Your task to perform on an android device: Go to Android settings Image 0: 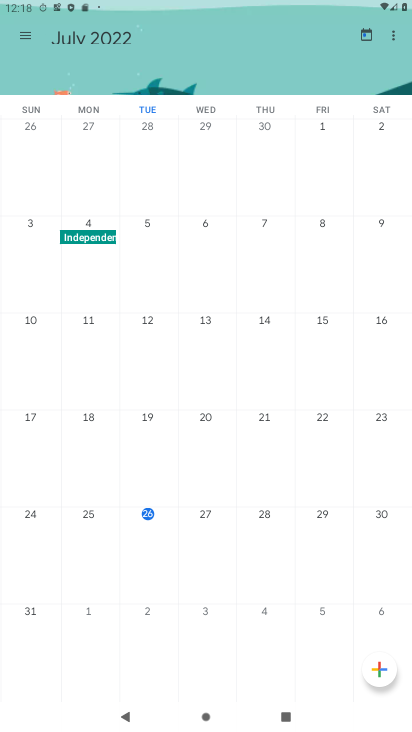
Step 0: press back button
Your task to perform on an android device: Go to Android settings Image 1: 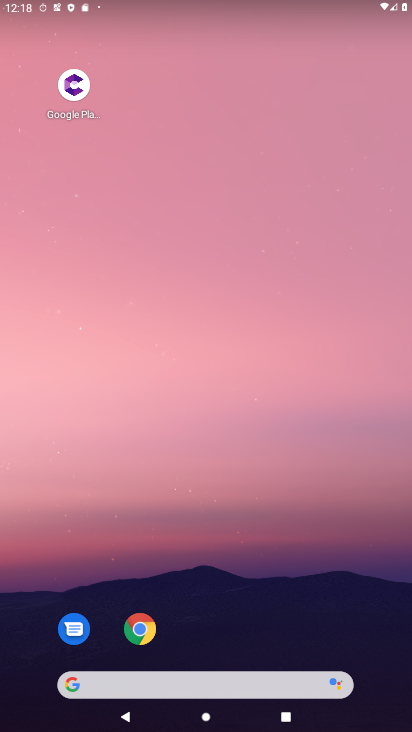
Step 1: drag from (255, 670) to (220, 86)
Your task to perform on an android device: Go to Android settings Image 2: 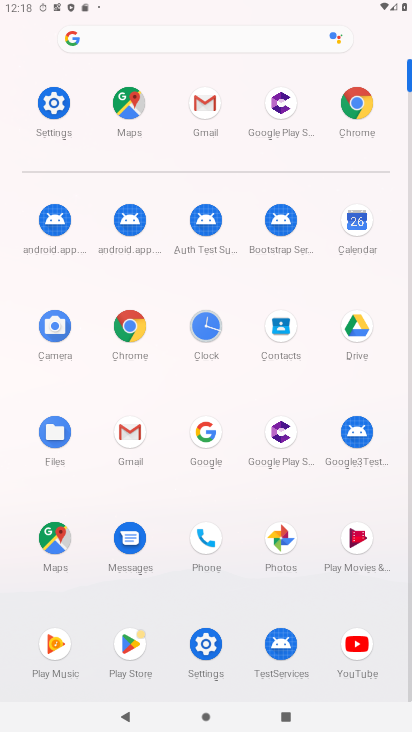
Step 2: click (127, 335)
Your task to perform on an android device: Go to Android settings Image 3: 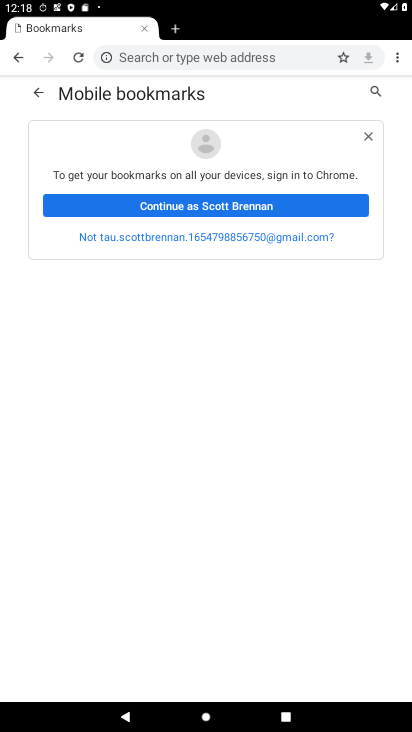
Step 3: click (35, 97)
Your task to perform on an android device: Go to Android settings Image 4: 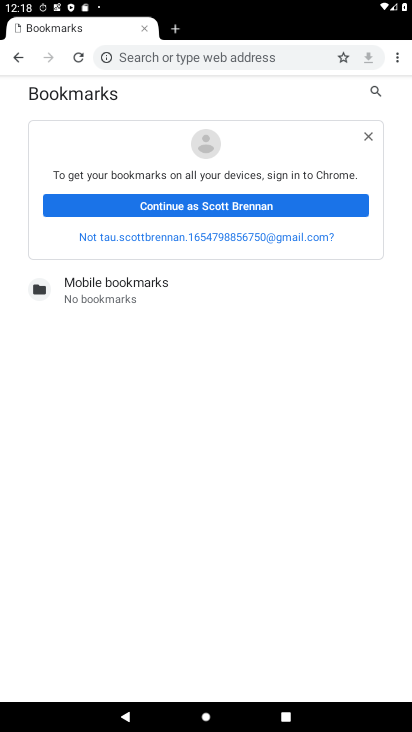
Step 4: click (368, 142)
Your task to perform on an android device: Go to Android settings Image 5: 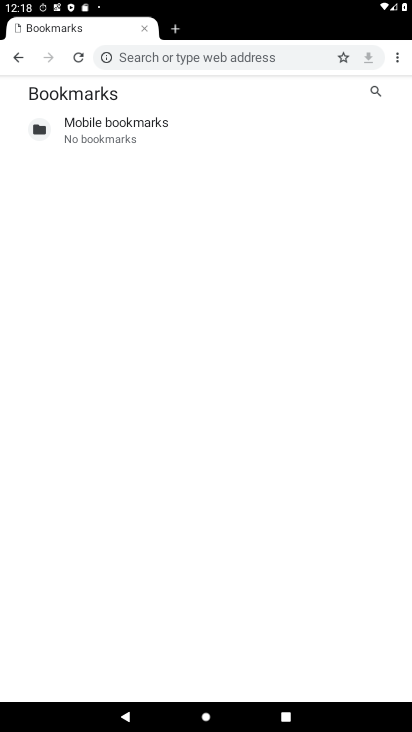
Step 5: press back button
Your task to perform on an android device: Go to Android settings Image 6: 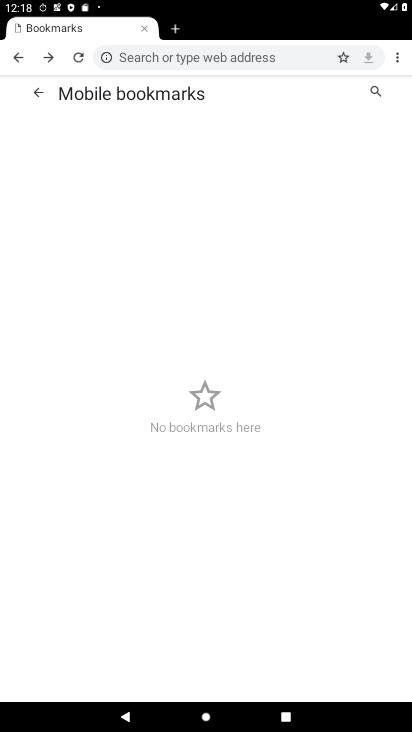
Step 6: click (41, 92)
Your task to perform on an android device: Go to Android settings Image 7: 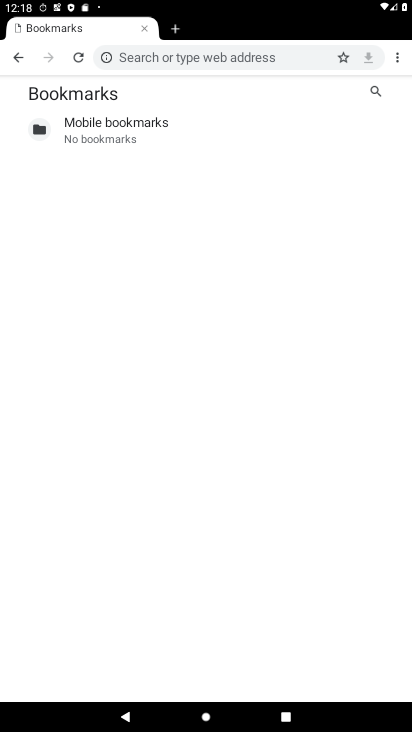
Step 7: click (392, 57)
Your task to perform on an android device: Go to Android settings Image 8: 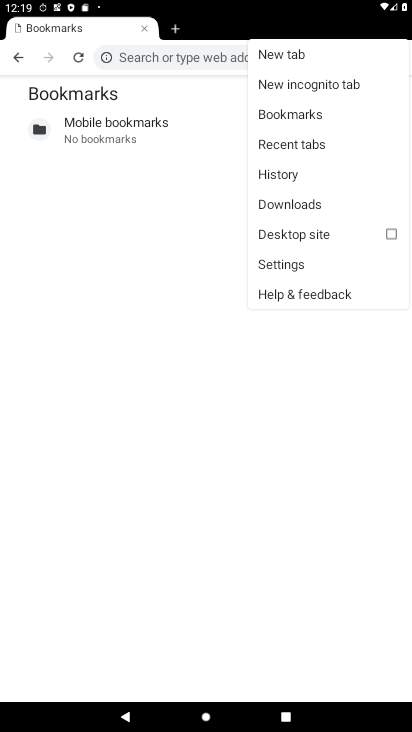
Step 8: click (162, 234)
Your task to perform on an android device: Go to Android settings Image 9: 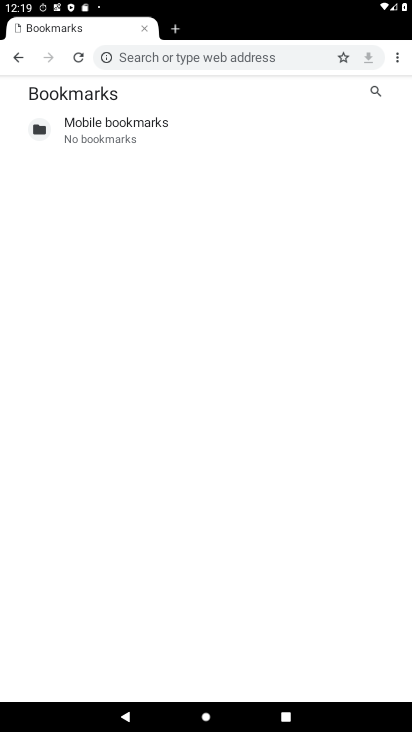
Step 9: click (154, 170)
Your task to perform on an android device: Go to Android settings Image 10: 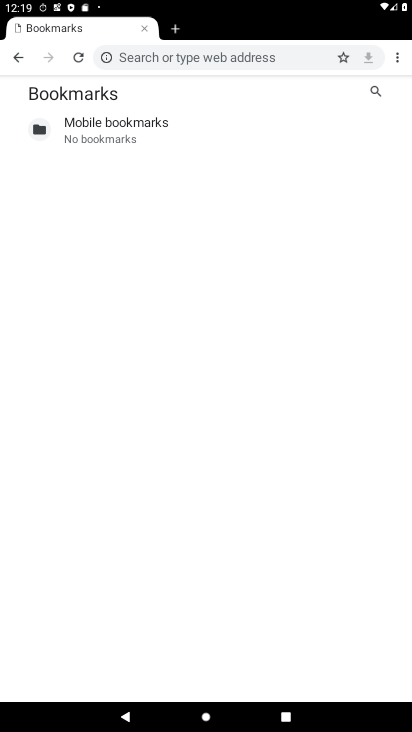
Step 10: press back button
Your task to perform on an android device: Go to Android settings Image 11: 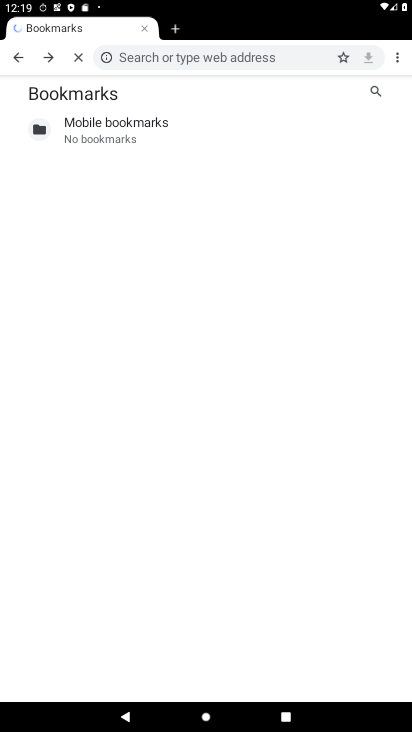
Step 11: press back button
Your task to perform on an android device: Go to Android settings Image 12: 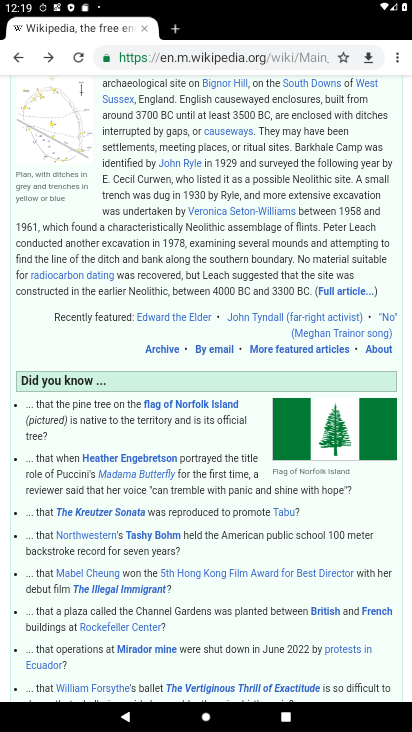
Step 12: press back button
Your task to perform on an android device: Go to Android settings Image 13: 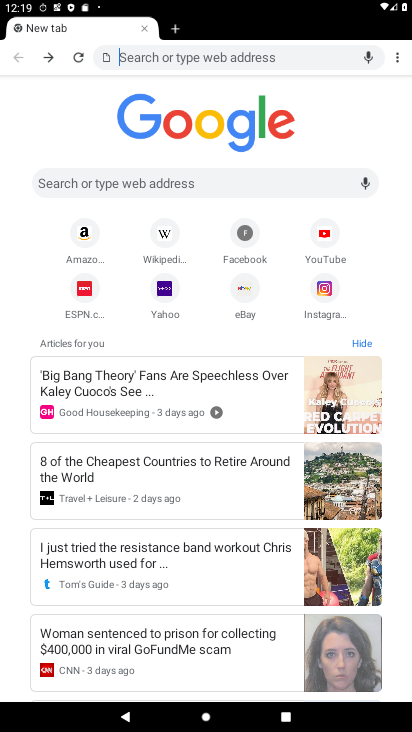
Step 13: press back button
Your task to perform on an android device: Go to Android settings Image 14: 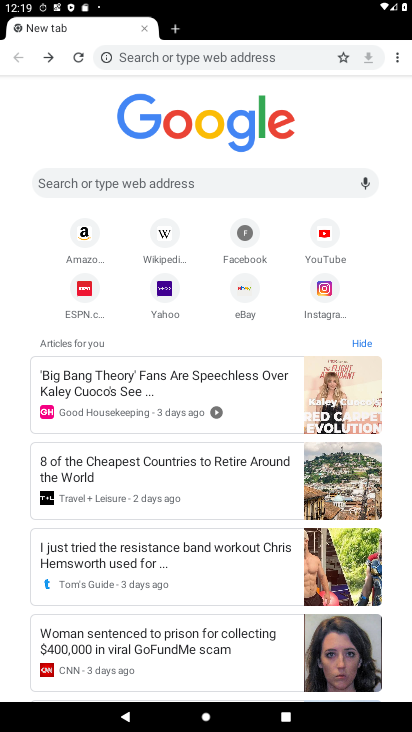
Step 14: press back button
Your task to perform on an android device: Go to Android settings Image 15: 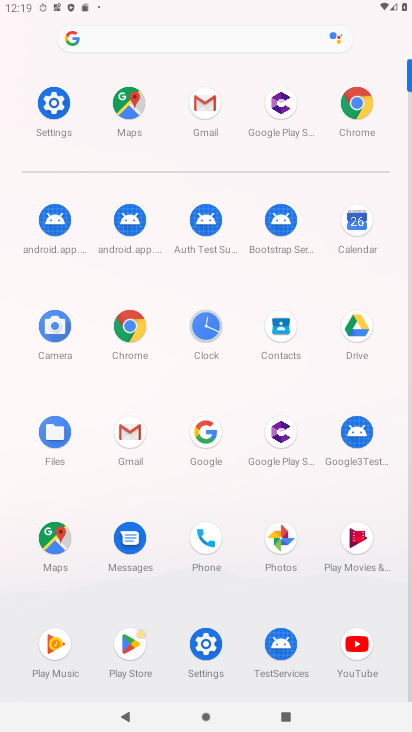
Step 15: press back button
Your task to perform on an android device: Go to Android settings Image 16: 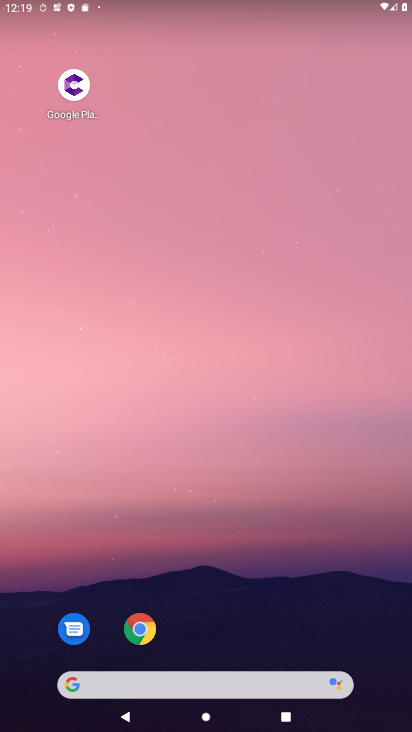
Step 16: drag from (289, 667) to (407, 137)
Your task to perform on an android device: Go to Android settings Image 17: 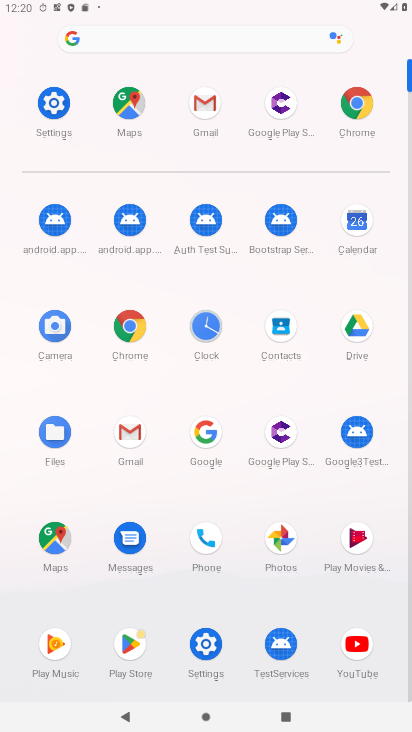
Step 17: click (49, 112)
Your task to perform on an android device: Go to Android settings Image 18: 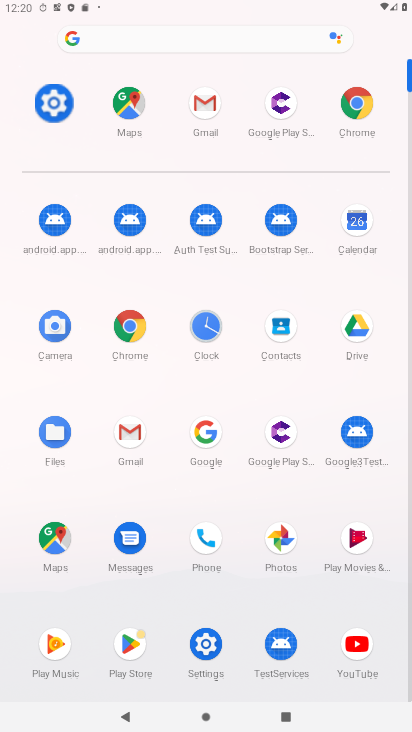
Step 18: click (53, 107)
Your task to perform on an android device: Go to Android settings Image 19: 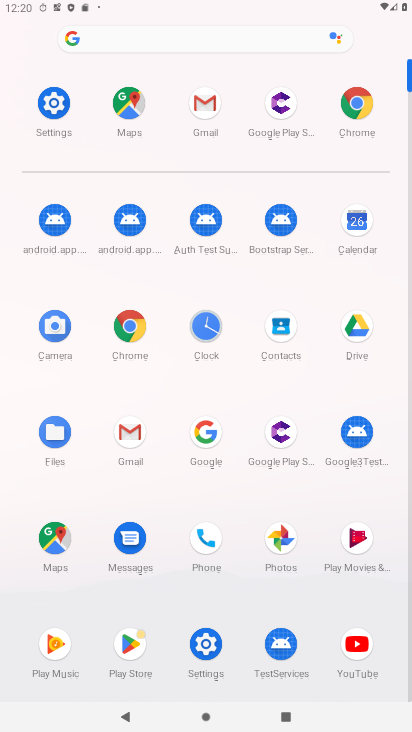
Step 19: click (54, 105)
Your task to perform on an android device: Go to Android settings Image 20: 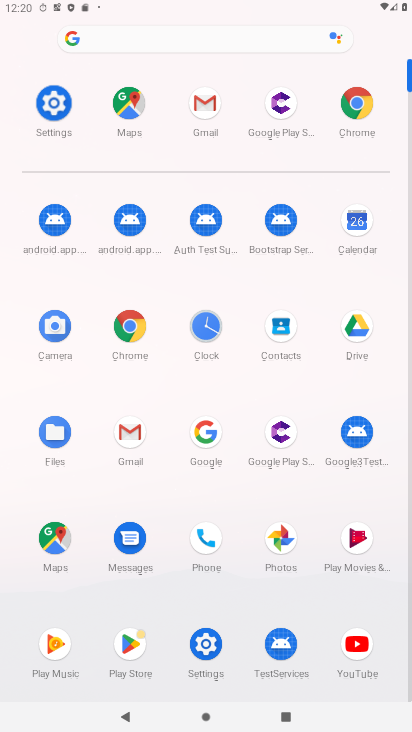
Step 20: click (55, 106)
Your task to perform on an android device: Go to Android settings Image 21: 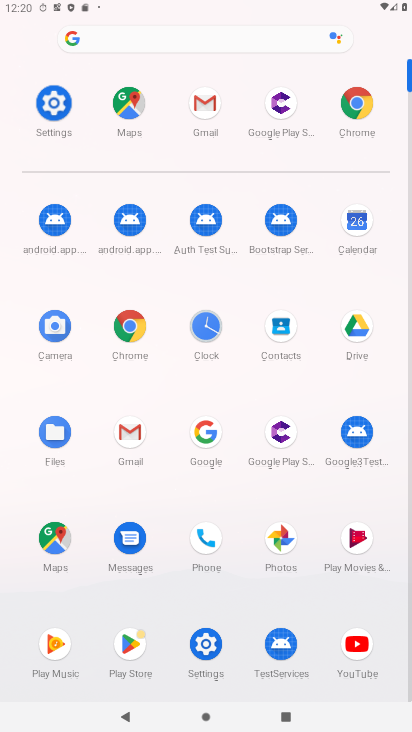
Step 21: click (52, 106)
Your task to perform on an android device: Go to Android settings Image 22: 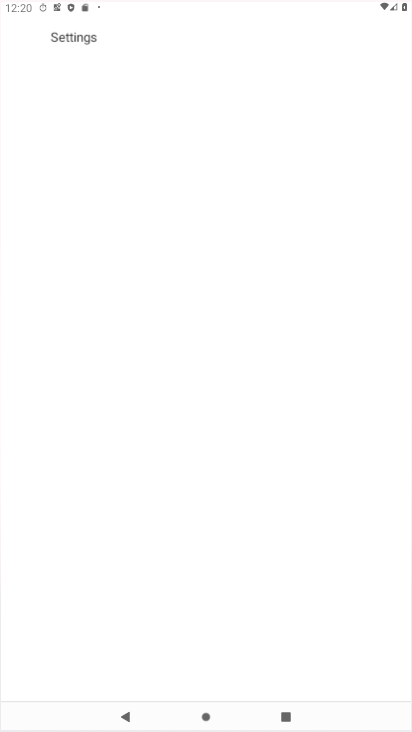
Step 22: click (52, 107)
Your task to perform on an android device: Go to Android settings Image 23: 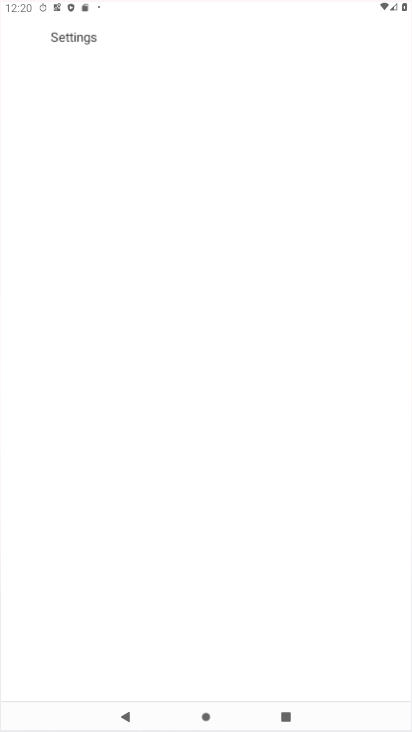
Step 23: click (54, 109)
Your task to perform on an android device: Go to Android settings Image 24: 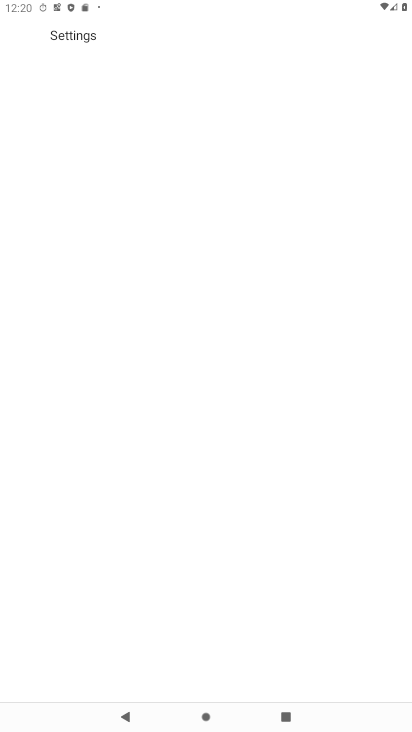
Step 24: click (54, 109)
Your task to perform on an android device: Go to Android settings Image 25: 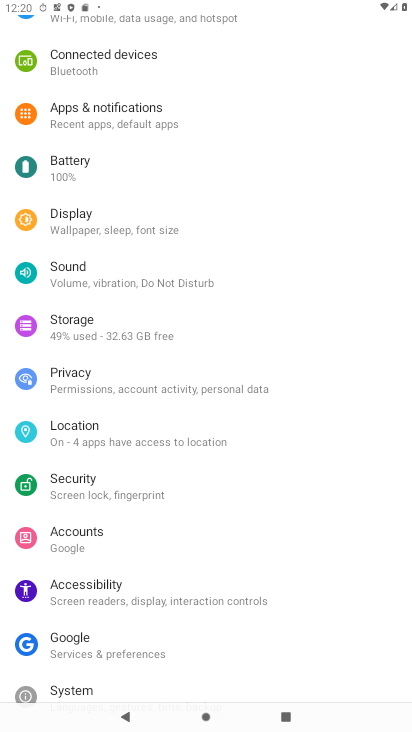
Step 25: drag from (153, 574) to (140, 327)
Your task to perform on an android device: Go to Android settings Image 26: 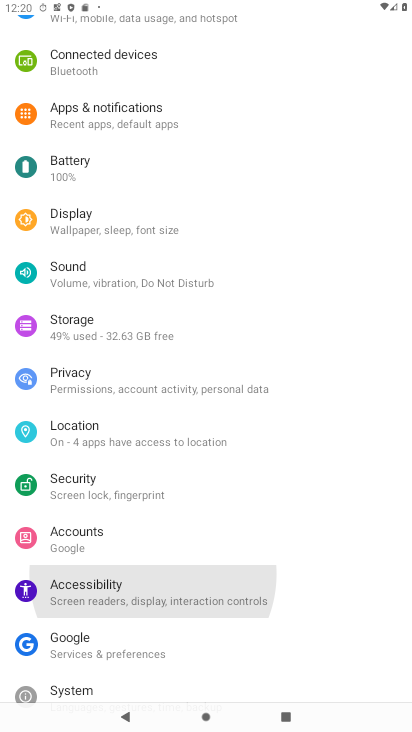
Step 26: drag from (153, 510) to (150, 377)
Your task to perform on an android device: Go to Android settings Image 27: 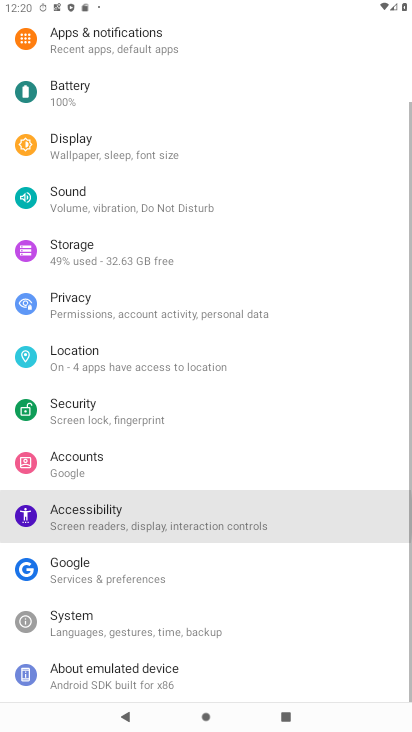
Step 27: drag from (167, 514) to (167, 351)
Your task to perform on an android device: Go to Android settings Image 28: 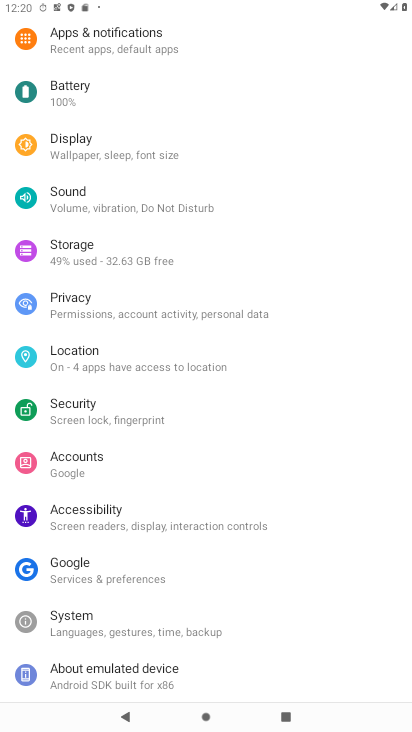
Step 28: click (158, 357)
Your task to perform on an android device: Go to Android settings Image 29: 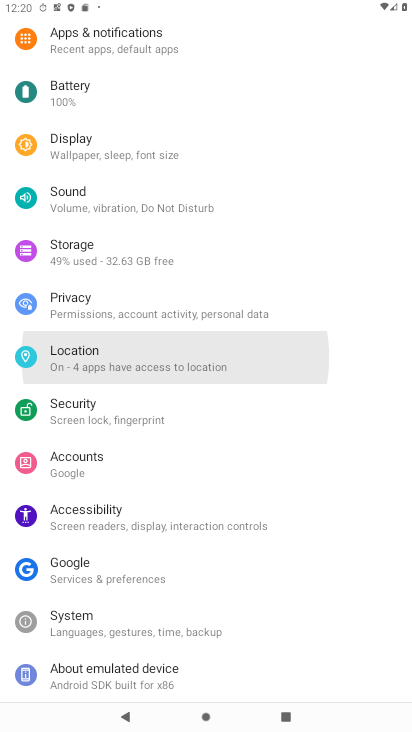
Step 29: drag from (153, 496) to (170, 282)
Your task to perform on an android device: Go to Android settings Image 30: 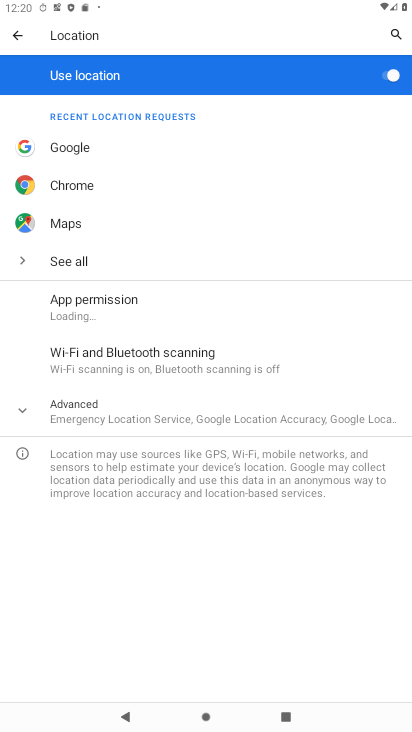
Step 30: click (15, 36)
Your task to perform on an android device: Go to Android settings Image 31: 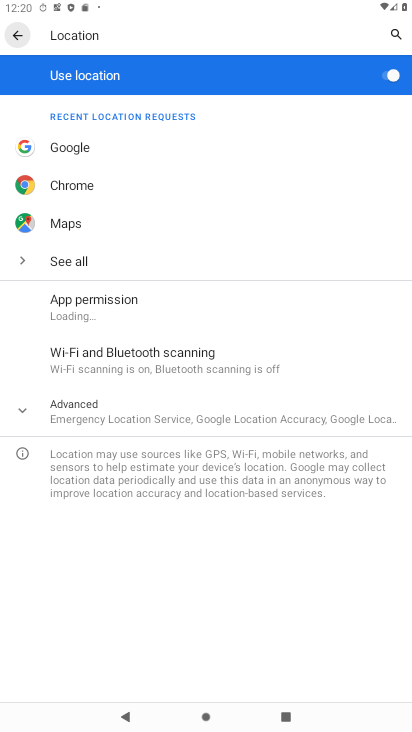
Step 31: click (12, 35)
Your task to perform on an android device: Go to Android settings Image 32: 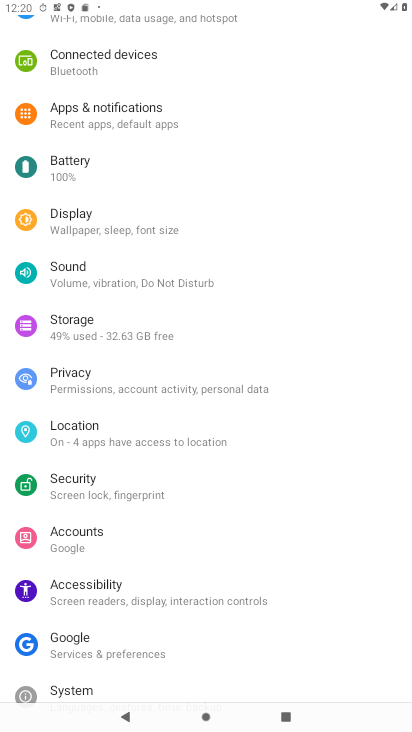
Step 32: drag from (103, 427) to (103, 289)
Your task to perform on an android device: Go to Android settings Image 33: 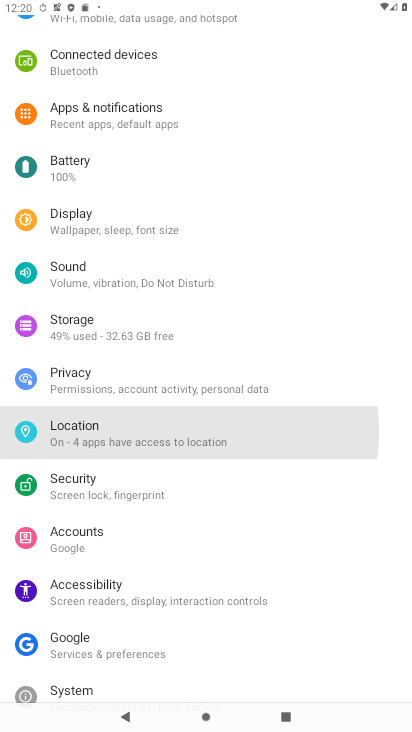
Step 33: drag from (128, 545) to (128, 272)
Your task to perform on an android device: Go to Android settings Image 34: 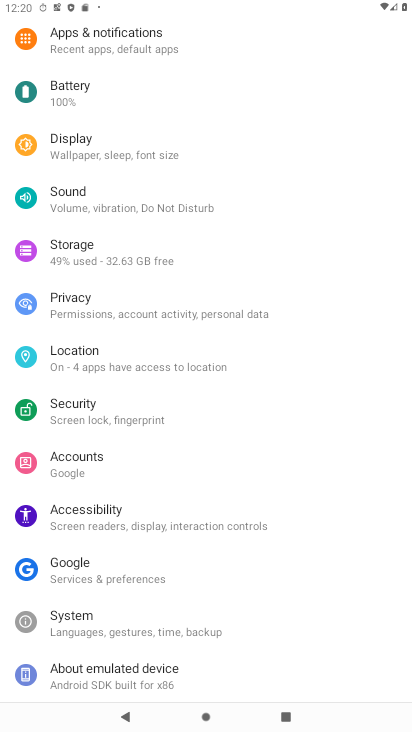
Step 34: click (101, 669)
Your task to perform on an android device: Go to Android settings Image 35: 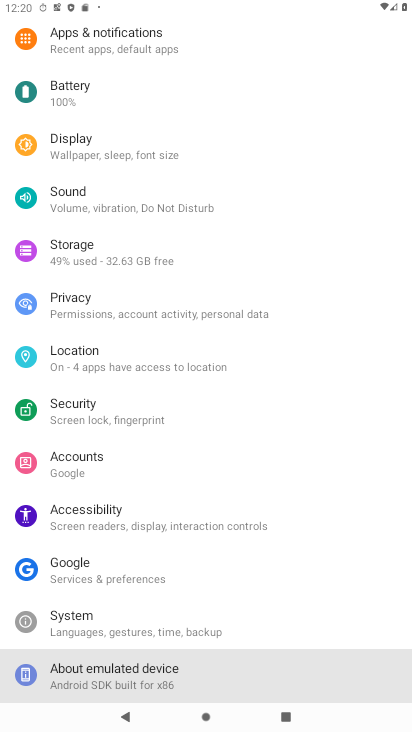
Step 35: click (102, 669)
Your task to perform on an android device: Go to Android settings Image 36: 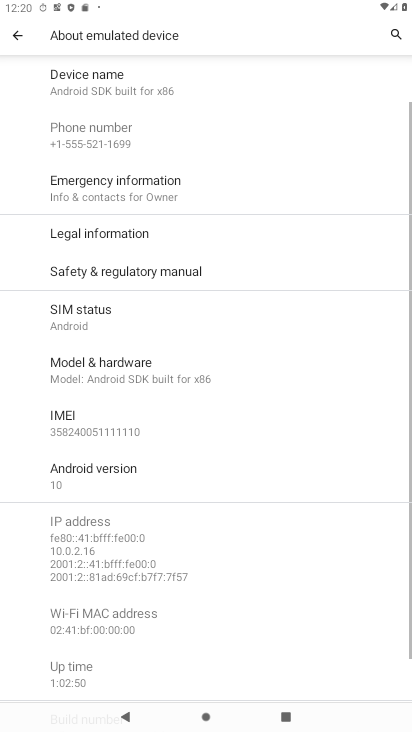
Step 36: task complete